Your task to perform on an android device: Search for sushi restaurants on Maps Image 0: 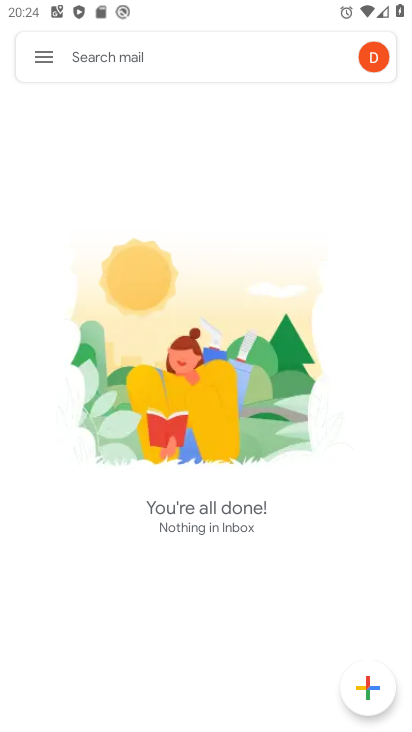
Step 0: press home button
Your task to perform on an android device: Search for sushi restaurants on Maps Image 1: 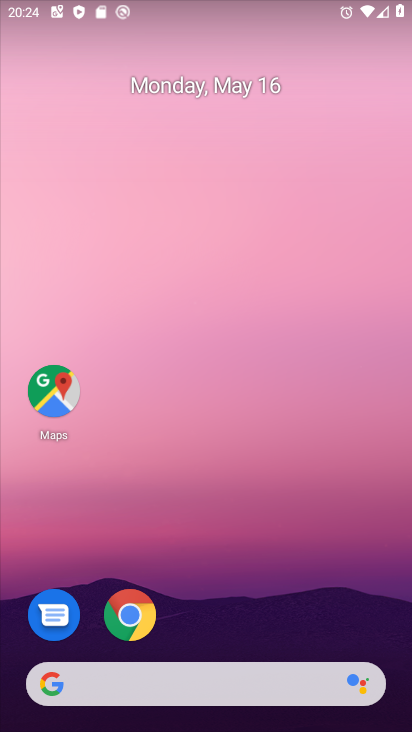
Step 1: click (55, 384)
Your task to perform on an android device: Search for sushi restaurants on Maps Image 2: 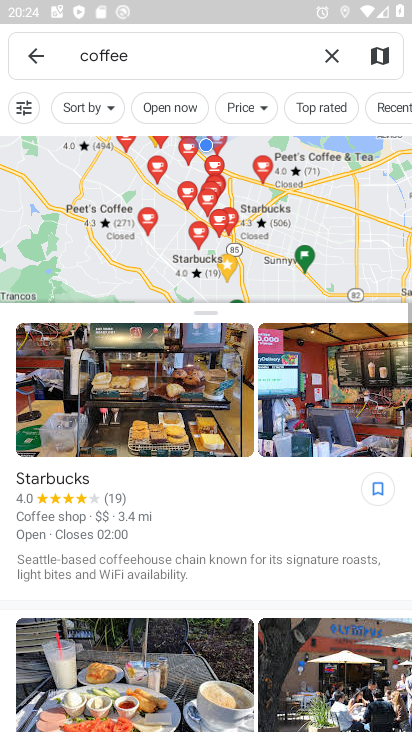
Step 2: click (335, 53)
Your task to perform on an android device: Search for sushi restaurants on Maps Image 3: 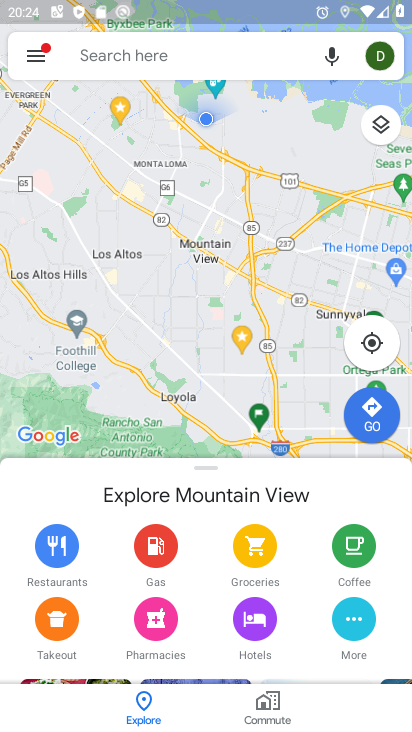
Step 3: click (217, 41)
Your task to perform on an android device: Search for sushi restaurants on Maps Image 4: 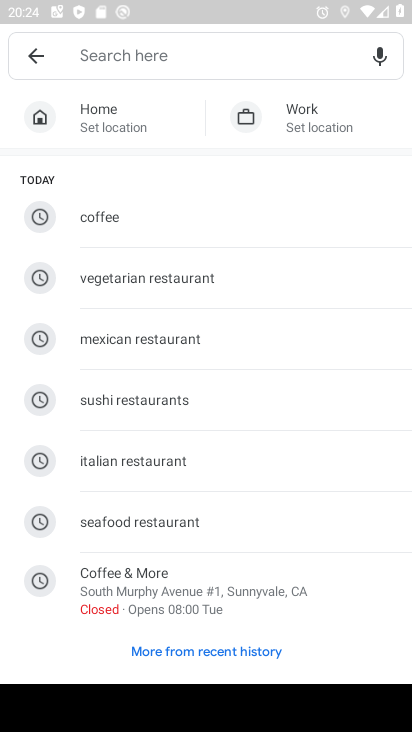
Step 4: click (98, 405)
Your task to perform on an android device: Search for sushi restaurants on Maps Image 5: 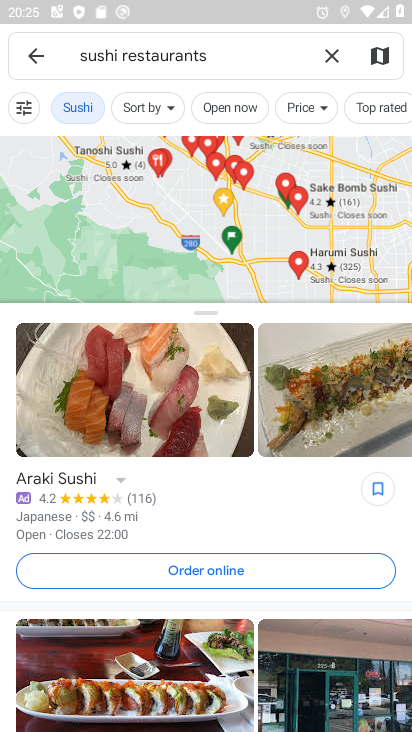
Step 5: task complete